Your task to perform on an android device: Toggle the flashlight Image 0: 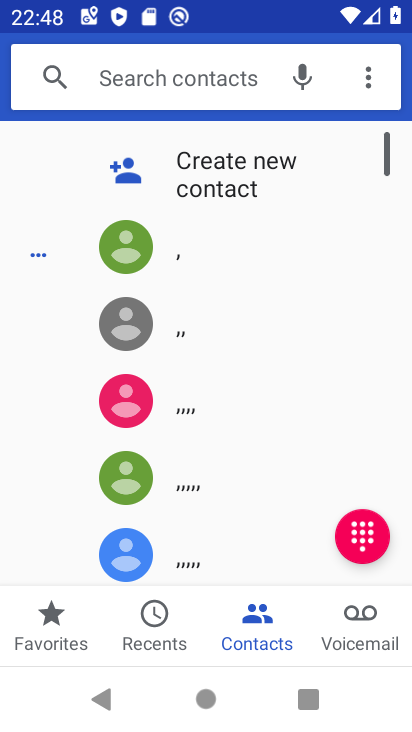
Step 0: press home button
Your task to perform on an android device: Toggle the flashlight Image 1: 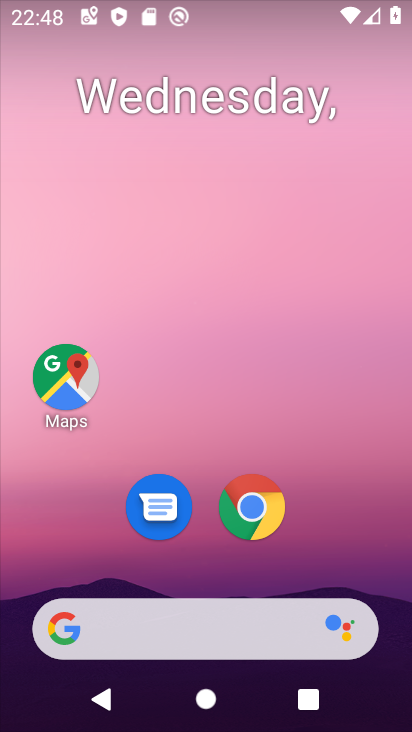
Step 1: drag from (317, 496) to (321, 303)
Your task to perform on an android device: Toggle the flashlight Image 2: 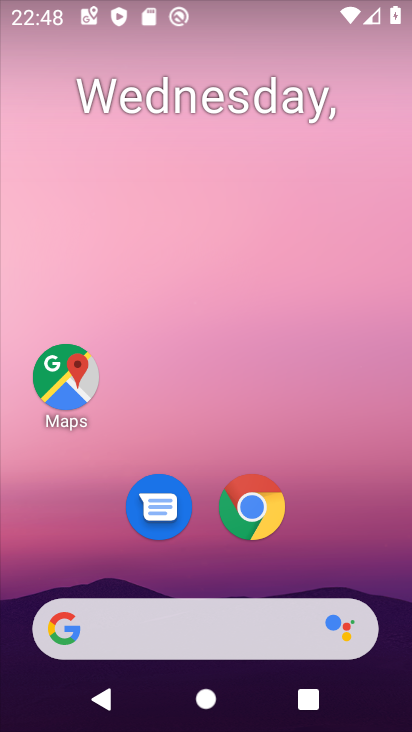
Step 2: drag from (308, 506) to (317, 212)
Your task to perform on an android device: Toggle the flashlight Image 3: 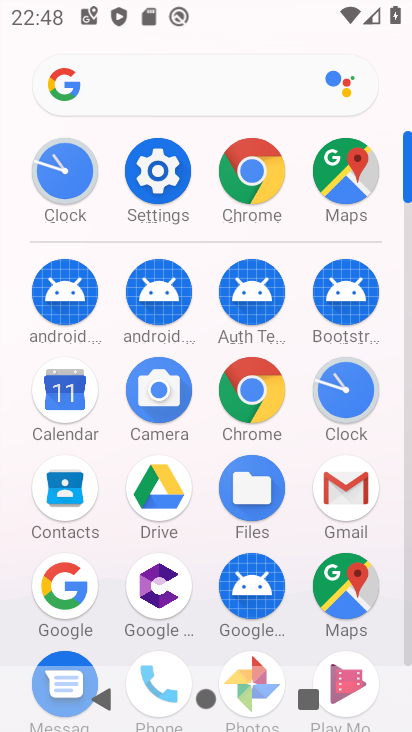
Step 3: click (145, 164)
Your task to perform on an android device: Toggle the flashlight Image 4: 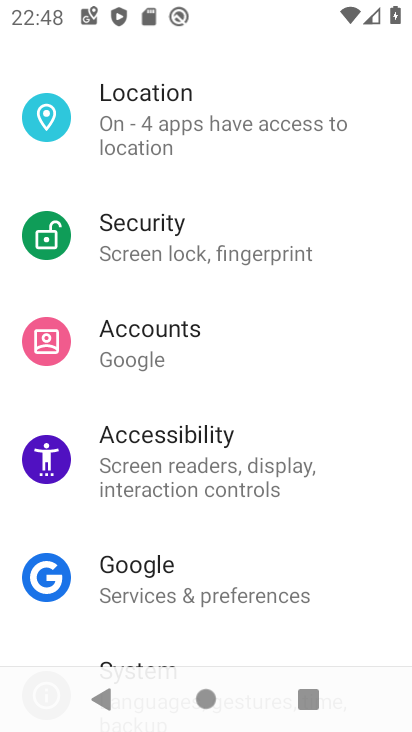
Step 4: task complete